Your task to perform on an android device: Open Android settings Image 0: 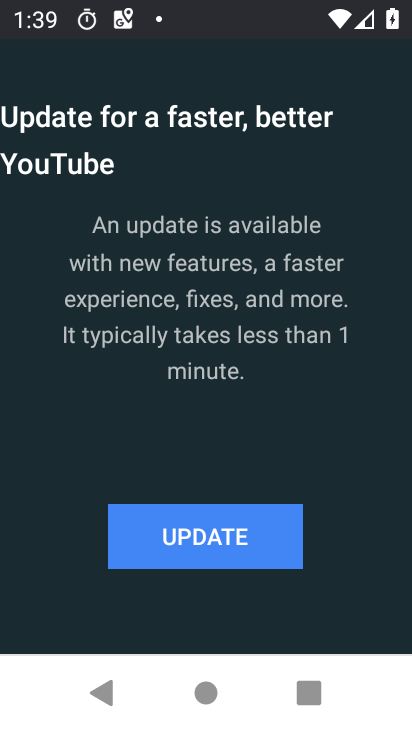
Step 0: press back button
Your task to perform on an android device: Open Android settings Image 1: 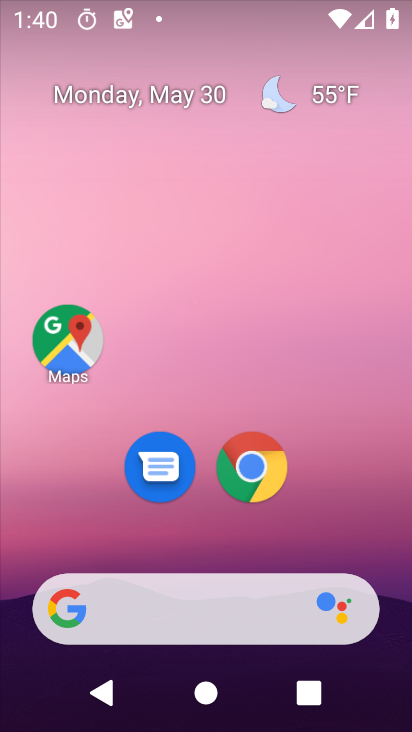
Step 1: drag from (383, 611) to (337, 179)
Your task to perform on an android device: Open Android settings Image 2: 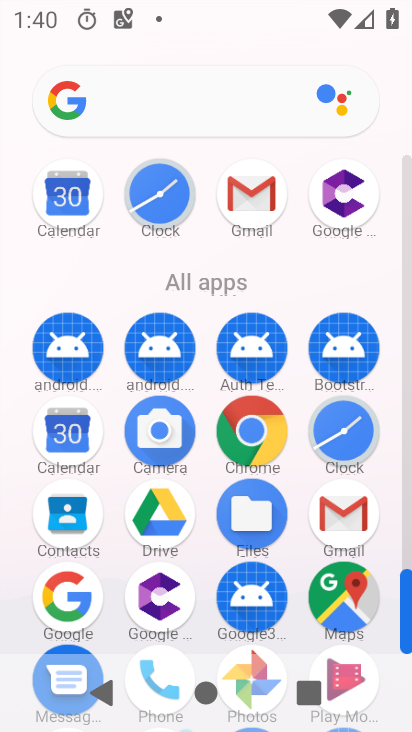
Step 2: drag from (192, 561) to (185, 230)
Your task to perform on an android device: Open Android settings Image 3: 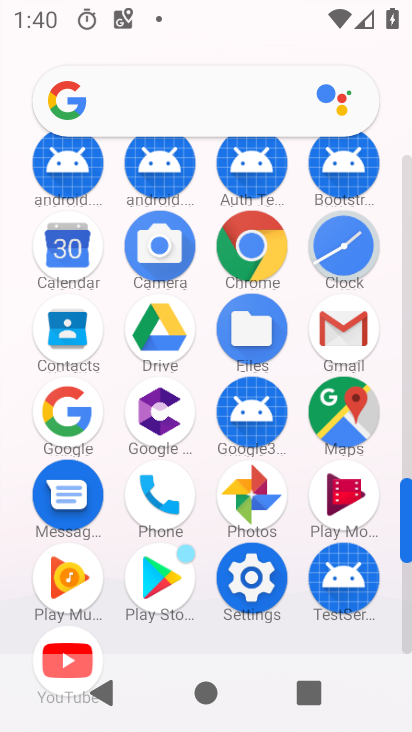
Step 3: click (263, 587)
Your task to perform on an android device: Open Android settings Image 4: 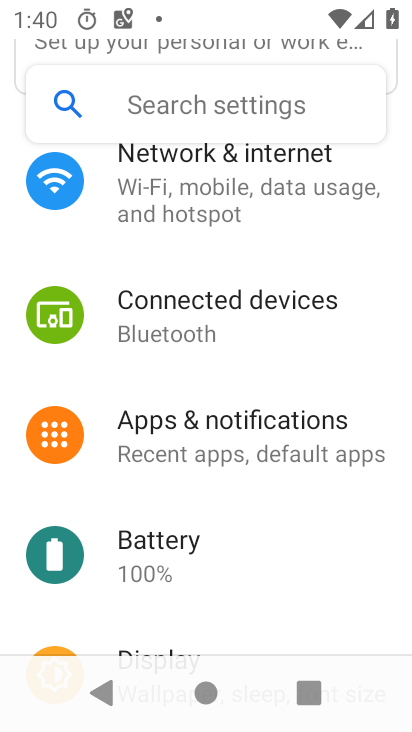
Step 4: task complete